Your task to perform on an android device: Open Youtube and go to "Your channel" Image 0: 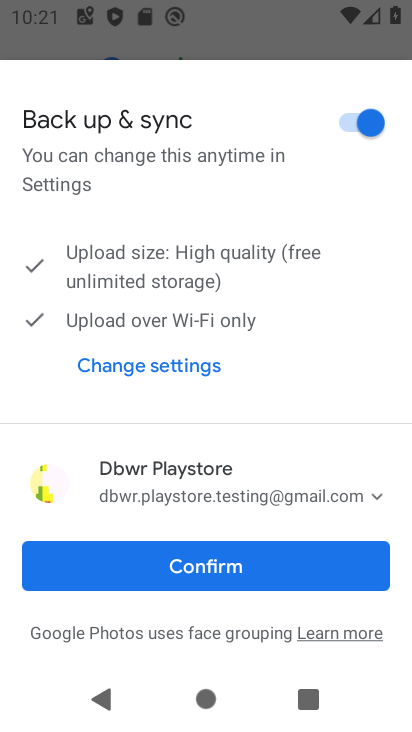
Step 0: press home button
Your task to perform on an android device: Open Youtube and go to "Your channel" Image 1: 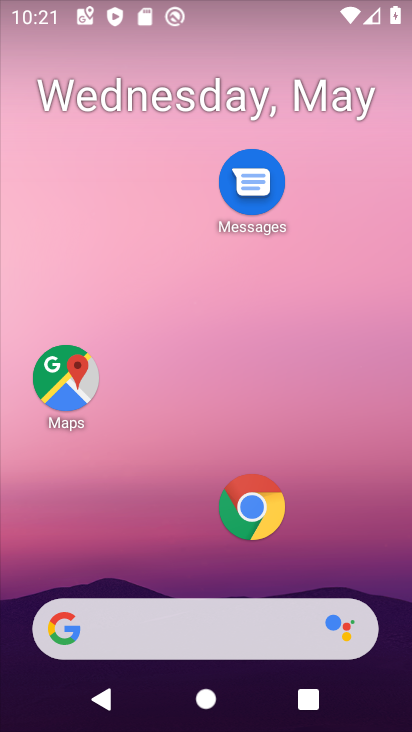
Step 1: drag from (200, 578) to (252, 81)
Your task to perform on an android device: Open Youtube and go to "Your channel" Image 2: 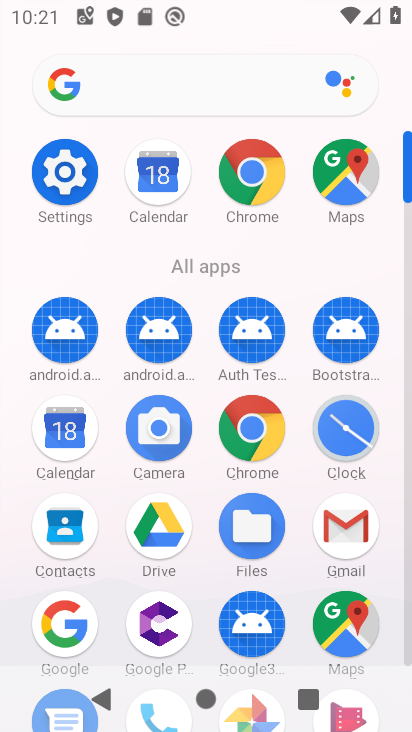
Step 2: drag from (202, 585) to (214, 105)
Your task to perform on an android device: Open Youtube and go to "Your channel" Image 3: 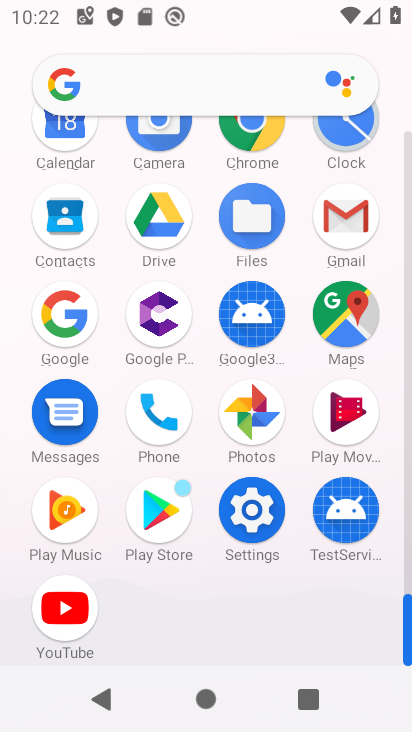
Step 3: click (59, 598)
Your task to perform on an android device: Open Youtube and go to "Your channel" Image 4: 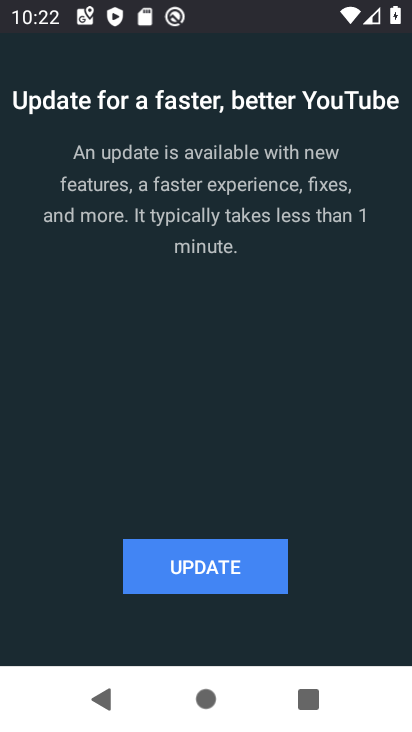
Step 4: click (206, 562)
Your task to perform on an android device: Open Youtube and go to "Your channel" Image 5: 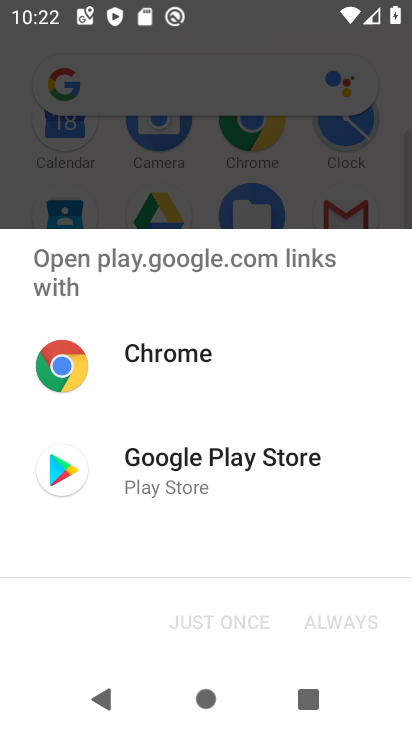
Step 5: click (180, 471)
Your task to perform on an android device: Open Youtube and go to "Your channel" Image 6: 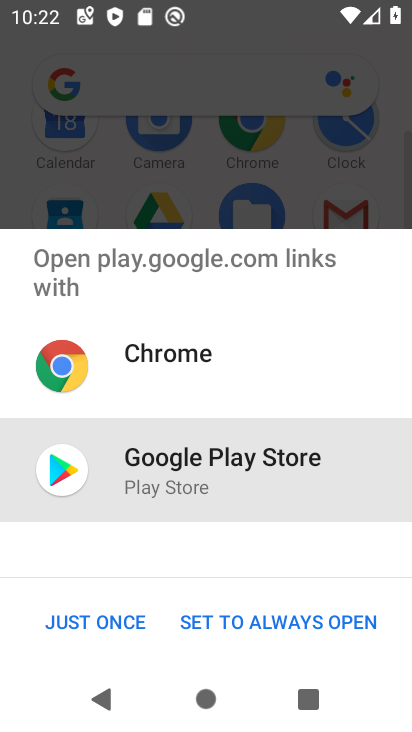
Step 6: click (91, 621)
Your task to perform on an android device: Open Youtube and go to "Your channel" Image 7: 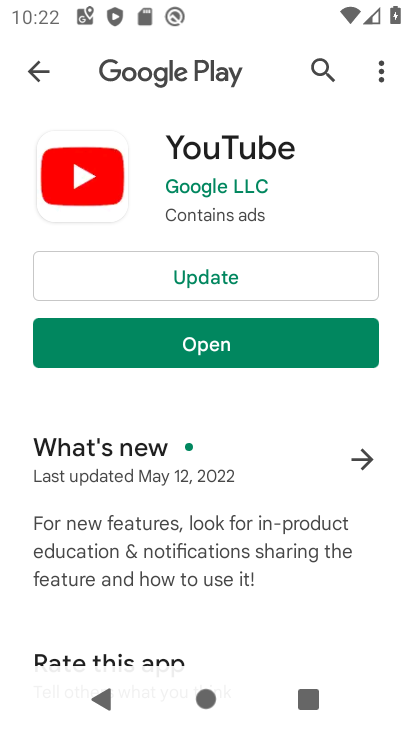
Step 7: click (213, 277)
Your task to perform on an android device: Open Youtube and go to "Your channel" Image 8: 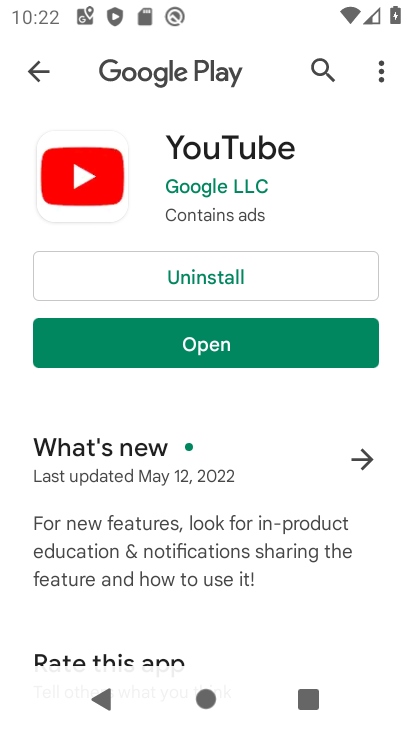
Step 8: click (213, 343)
Your task to perform on an android device: Open Youtube and go to "Your channel" Image 9: 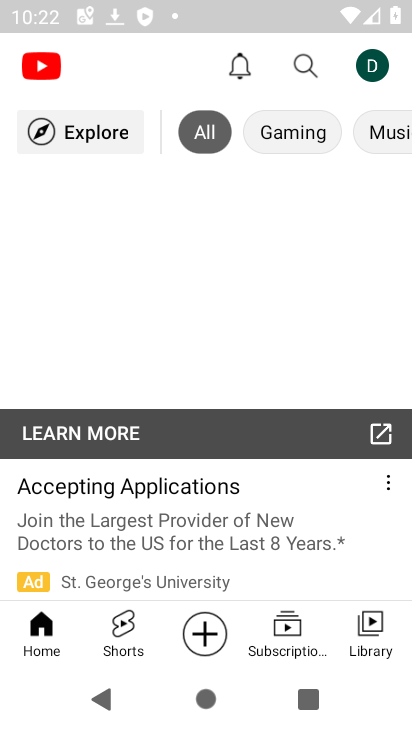
Step 9: click (375, 61)
Your task to perform on an android device: Open Youtube and go to "Your channel" Image 10: 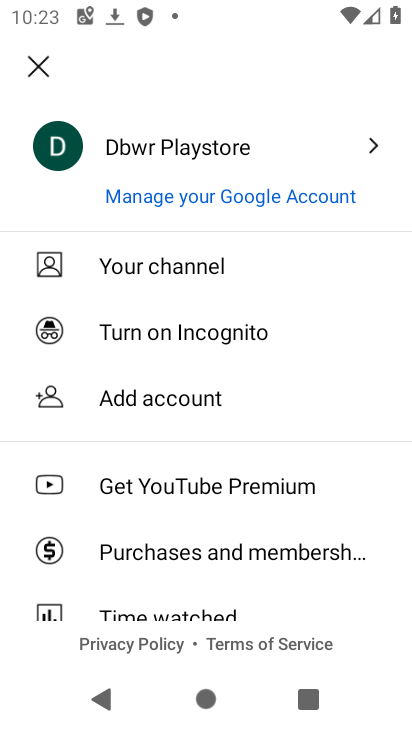
Step 10: click (241, 261)
Your task to perform on an android device: Open Youtube and go to "Your channel" Image 11: 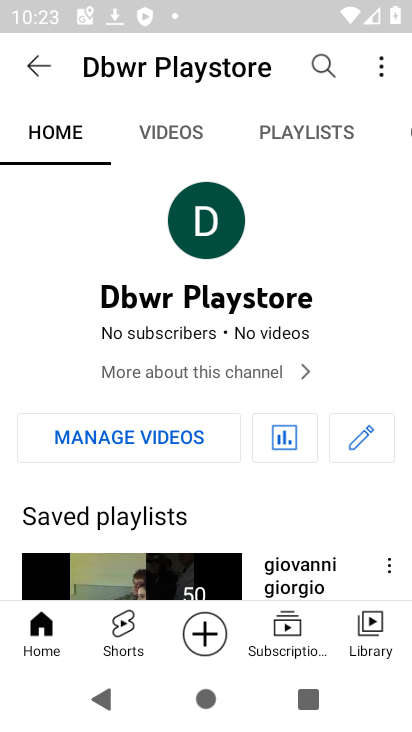
Step 11: task complete